Your task to perform on an android device: toggle sleep mode Image 0: 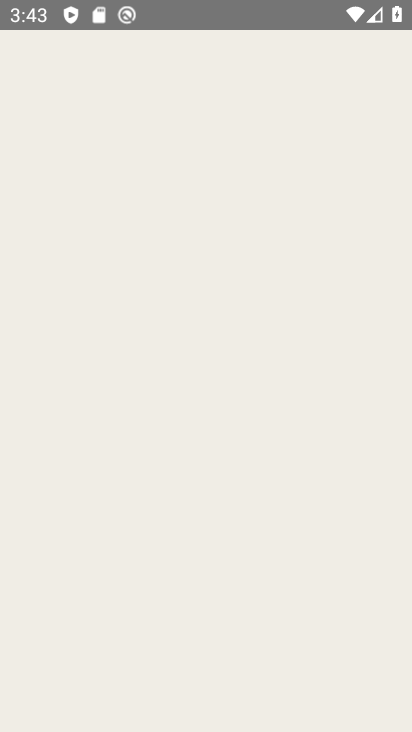
Step 0: press home button
Your task to perform on an android device: toggle sleep mode Image 1: 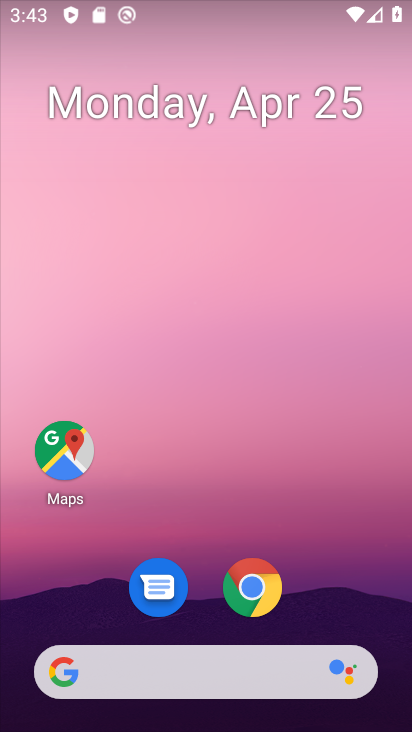
Step 1: drag from (204, 569) to (273, 124)
Your task to perform on an android device: toggle sleep mode Image 2: 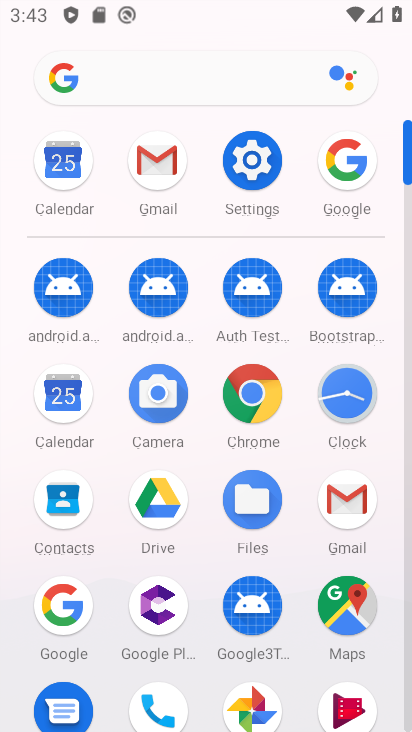
Step 2: click (244, 155)
Your task to perform on an android device: toggle sleep mode Image 3: 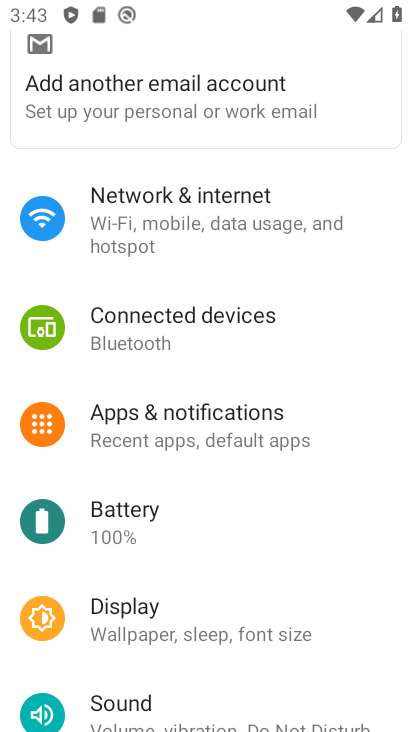
Step 3: drag from (228, 535) to (282, 259)
Your task to perform on an android device: toggle sleep mode Image 4: 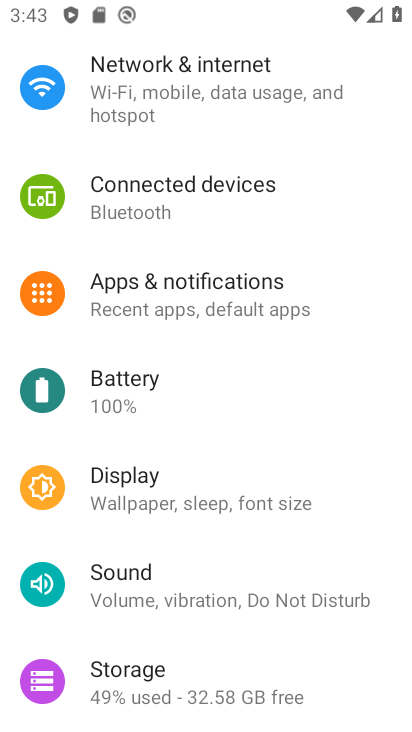
Step 4: click (183, 466)
Your task to perform on an android device: toggle sleep mode Image 5: 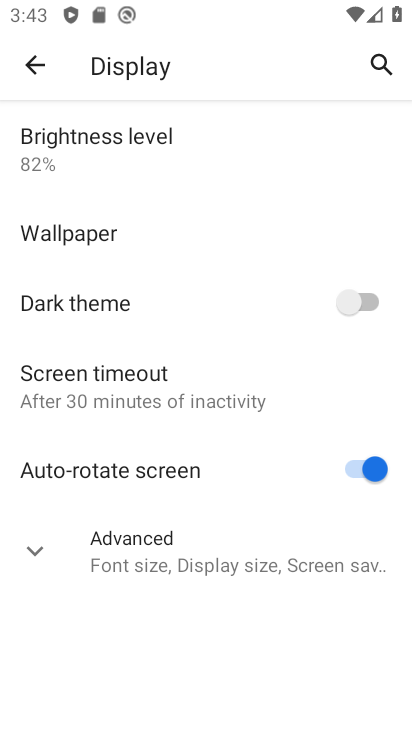
Step 5: click (134, 381)
Your task to perform on an android device: toggle sleep mode Image 6: 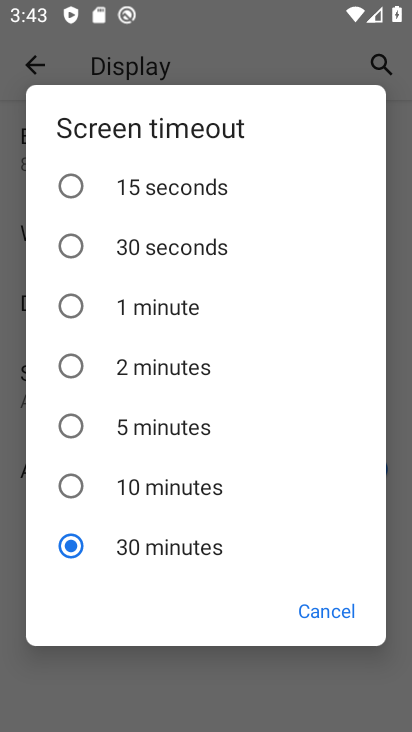
Step 6: click (71, 366)
Your task to perform on an android device: toggle sleep mode Image 7: 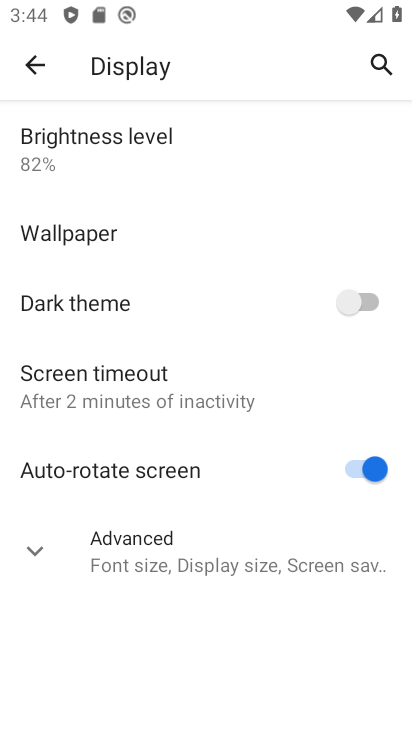
Step 7: task complete